Your task to perform on an android device: Go to eBay Image 0: 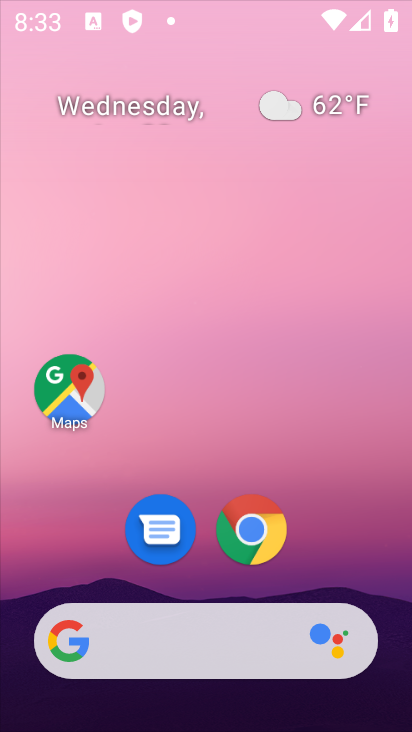
Step 0: drag from (260, 583) to (319, 128)
Your task to perform on an android device: Go to eBay Image 1: 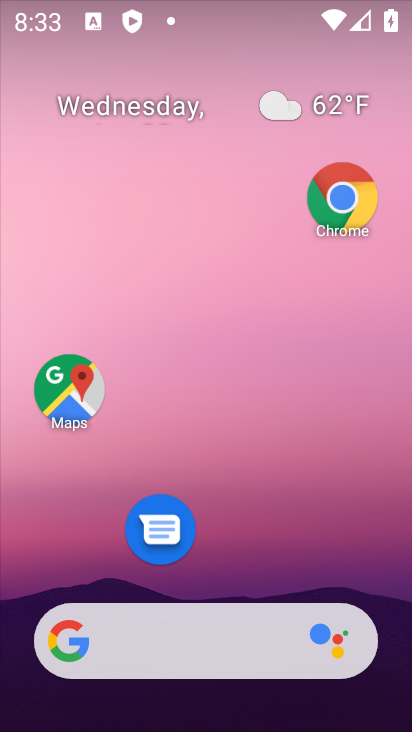
Step 1: drag from (268, 572) to (267, 141)
Your task to perform on an android device: Go to eBay Image 2: 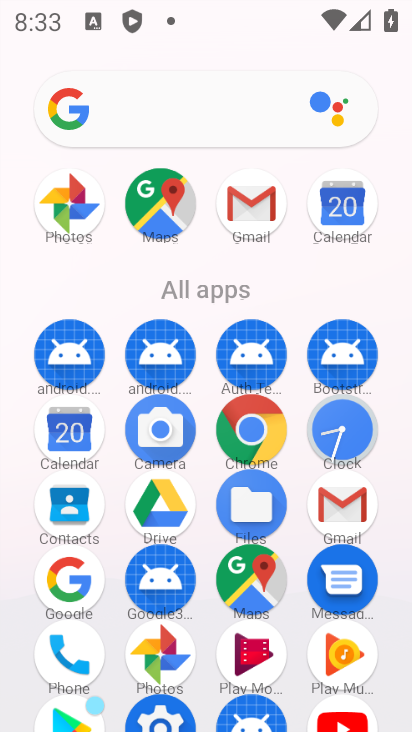
Step 2: click (249, 432)
Your task to perform on an android device: Go to eBay Image 3: 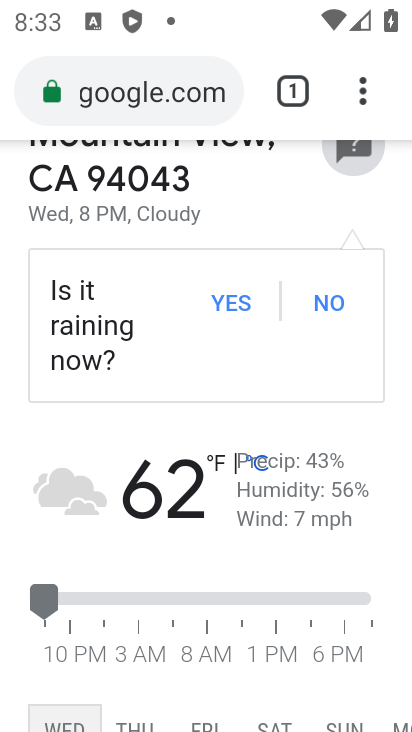
Step 3: click (142, 100)
Your task to perform on an android device: Go to eBay Image 4: 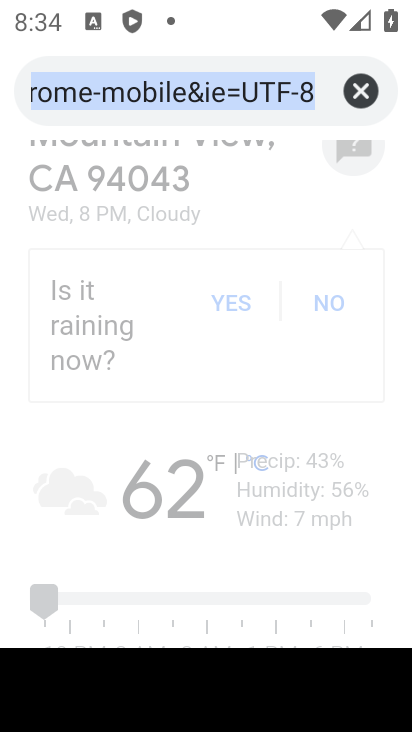
Step 4: type "eBay"
Your task to perform on an android device: Go to eBay Image 5: 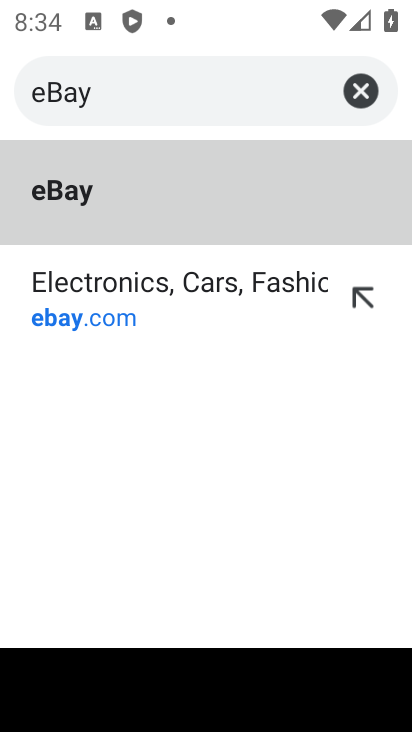
Step 5: click (215, 192)
Your task to perform on an android device: Go to eBay Image 6: 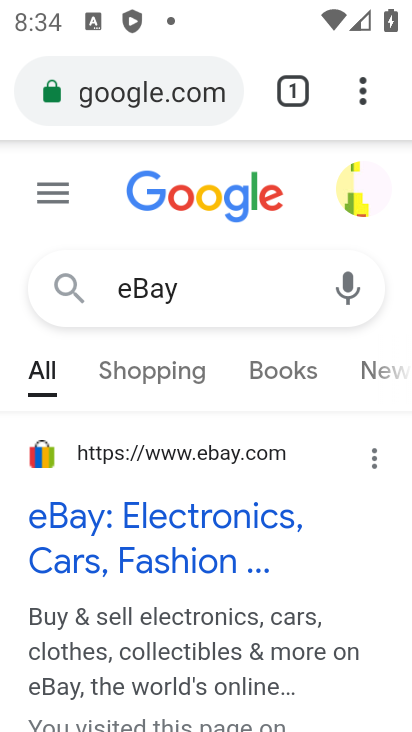
Step 6: task complete